Your task to perform on an android device: set an alarm Image 0: 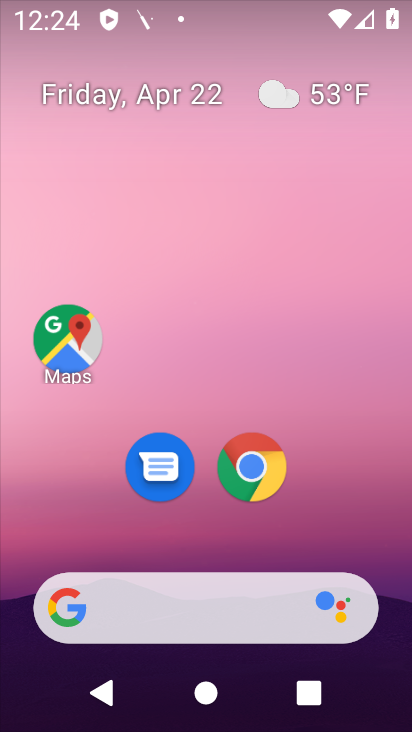
Step 0: drag from (394, 602) to (368, 153)
Your task to perform on an android device: set an alarm Image 1: 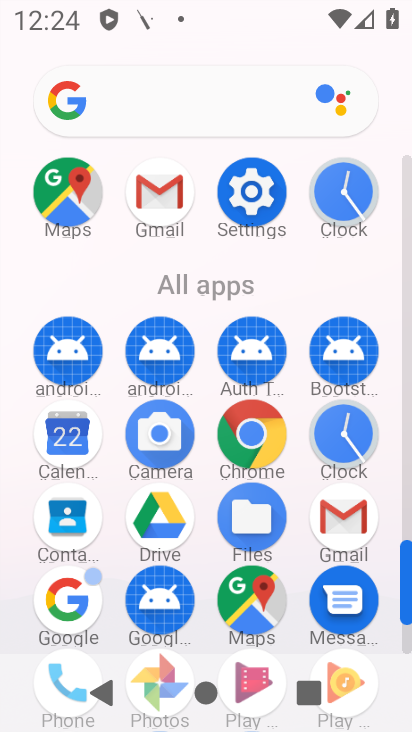
Step 1: click (404, 645)
Your task to perform on an android device: set an alarm Image 2: 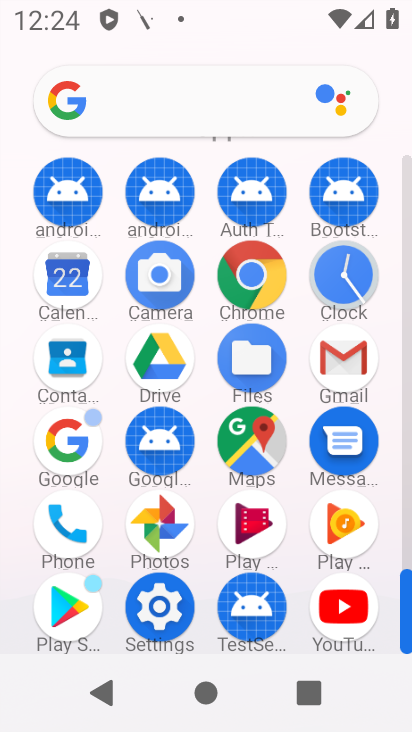
Step 2: click (341, 271)
Your task to perform on an android device: set an alarm Image 3: 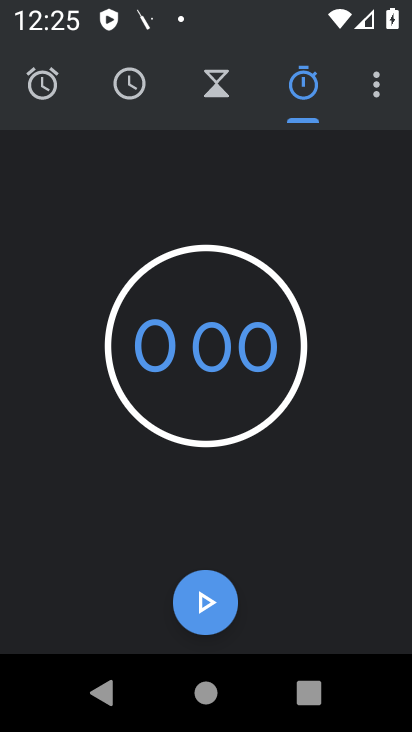
Step 3: click (38, 86)
Your task to perform on an android device: set an alarm Image 4: 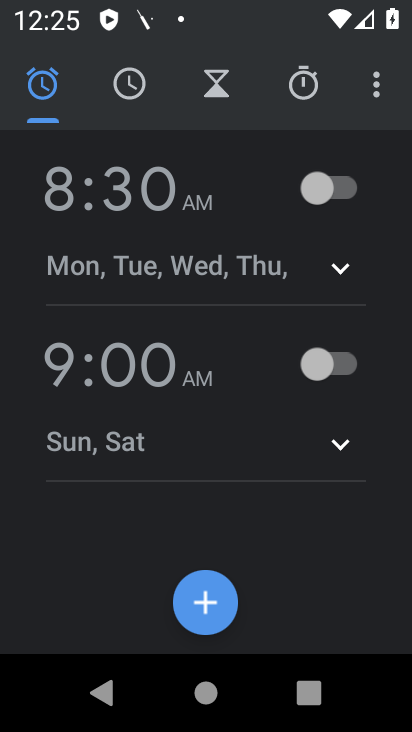
Step 4: click (78, 194)
Your task to perform on an android device: set an alarm Image 5: 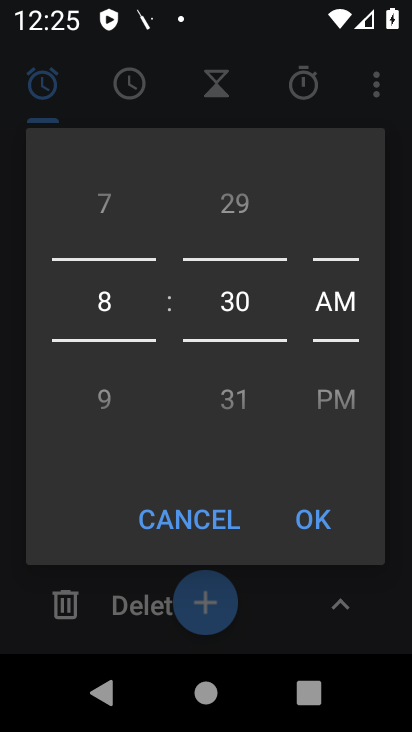
Step 5: drag from (115, 236) to (101, 417)
Your task to perform on an android device: set an alarm Image 6: 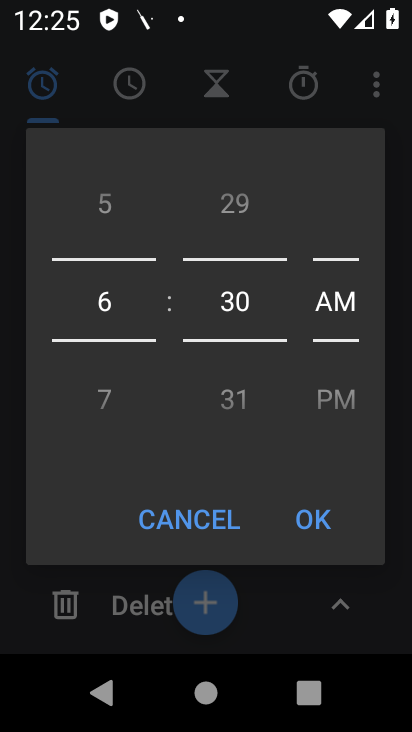
Step 6: click (312, 519)
Your task to perform on an android device: set an alarm Image 7: 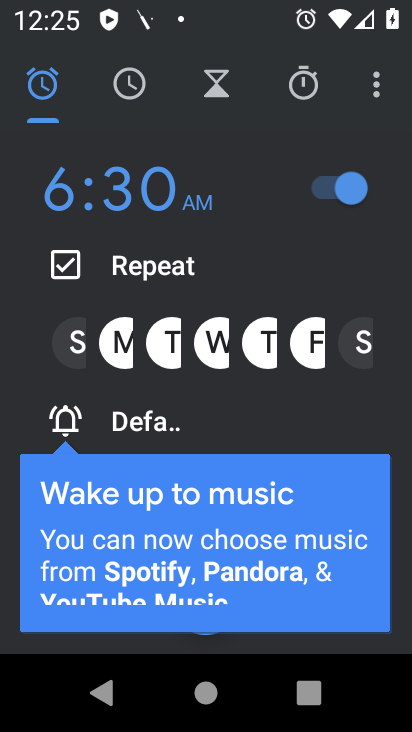
Step 7: click (360, 334)
Your task to perform on an android device: set an alarm Image 8: 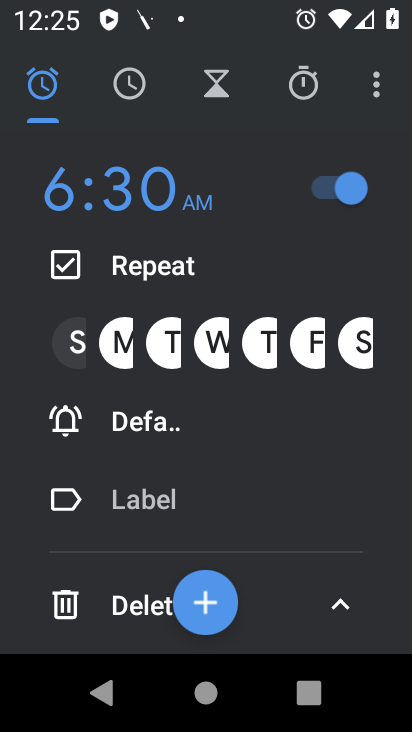
Step 8: click (334, 605)
Your task to perform on an android device: set an alarm Image 9: 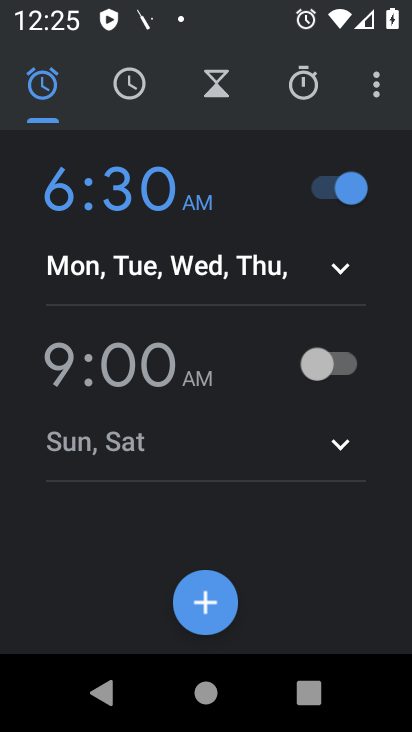
Step 9: task complete